Your task to perform on an android device: check the backup settings in the google photos Image 0: 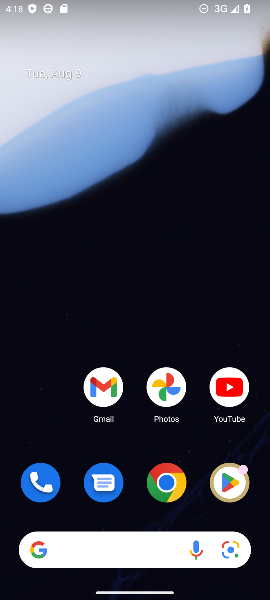
Step 0: click (154, 396)
Your task to perform on an android device: check the backup settings in the google photos Image 1: 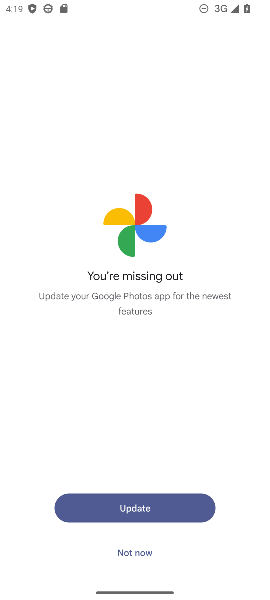
Step 1: click (133, 553)
Your task to perform on an android device: check the backup settings in the google photos Image 2: 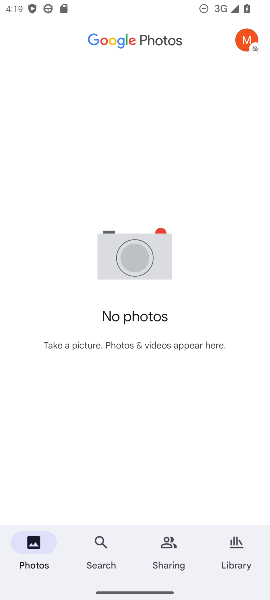
Step 2: click (246, 49)
Your task to perform on an android device: check the backup settings in the google photos Image 3: 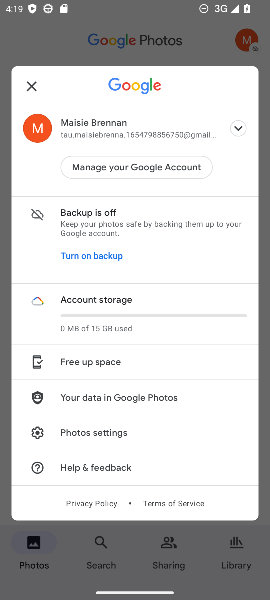
Step 3: click (114, 434)
Your task to perform on an android device: check the backup settings in the google photos Image 4: 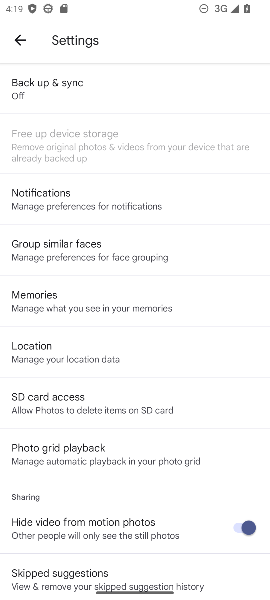
Step 4: click (98, 107)
Your task to perform on an android device: check the backup settings in the google photos Image 5: 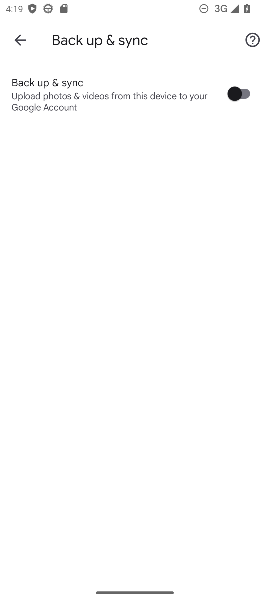
Step 5: task complete